Your task to perform on an android device: read, delete, or share a saved page in the chrome app Image 0: 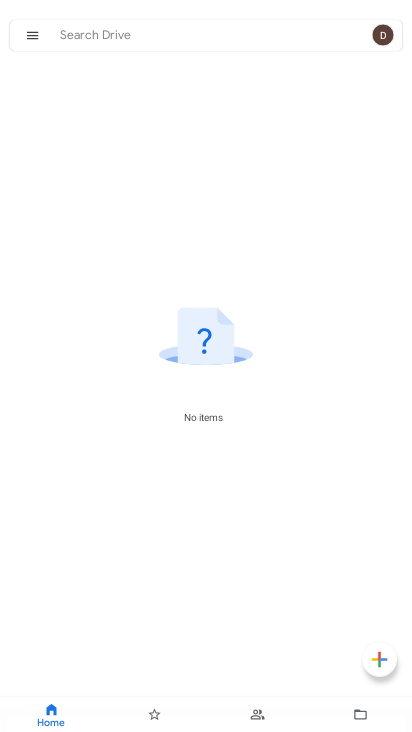
Step 0: press home button
Your task to perform on an android device: read, delete, or share a saved page in the chrome app Image 1: 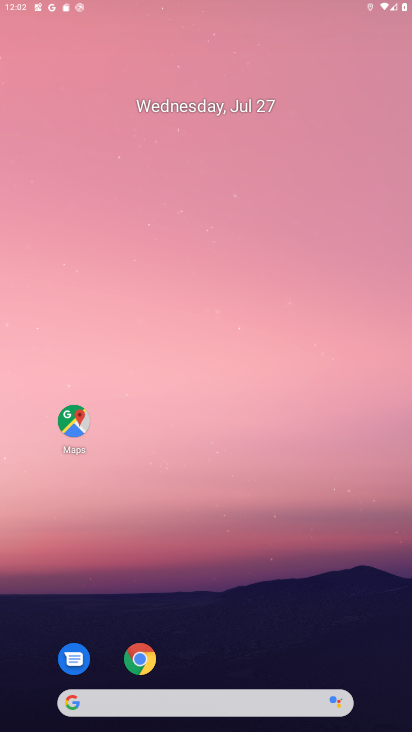
Step 1: drag from (294, 693) to (310, 5)
Your task to perform on an android device: read, delete, or share a saved page in the chrome app Image 2: 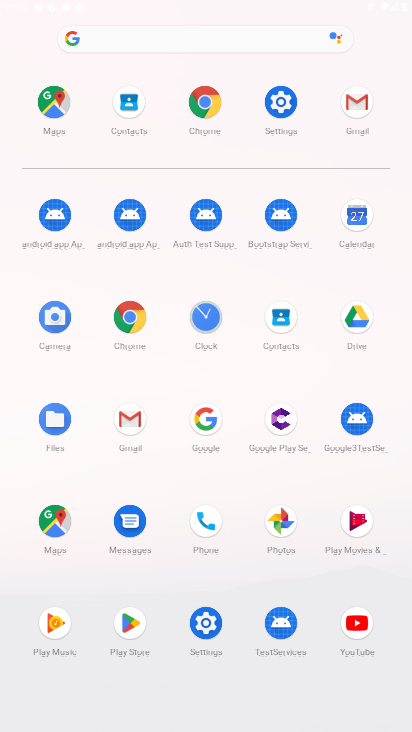
Step 2: click (140, 312)
Your task to perform on an android device: read, delete, or share a saved page in the chrome app Image 3: 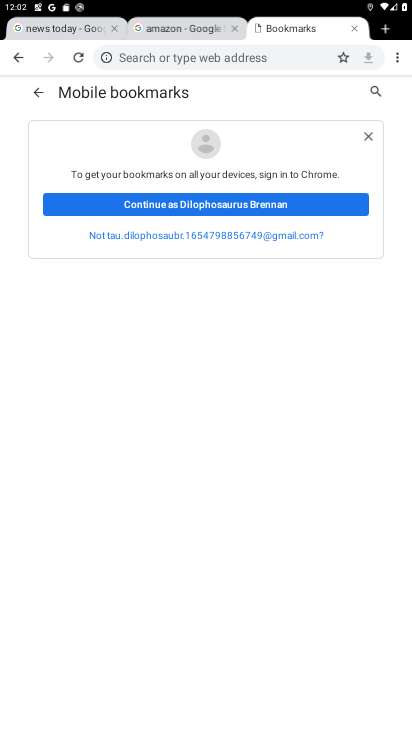
Step 3: click (398, 62)
Your task to perform on an android device: read, delete, or share a saved page in the chrome app Image 4: 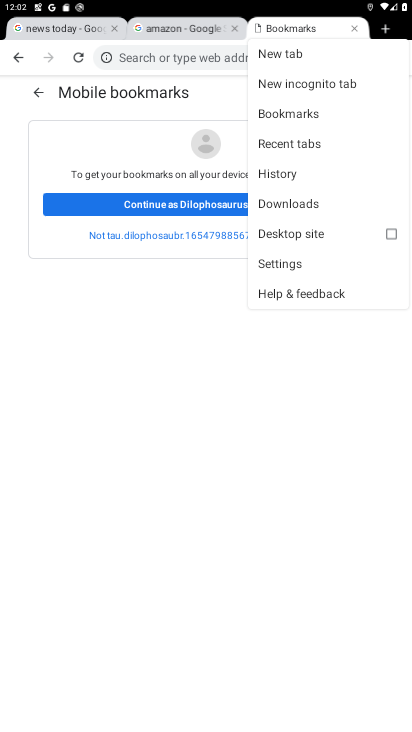
Step 4: click (286, 204)
Your task to perform on an android device: read, delete, or share a saved page in the chrome app Image 5: 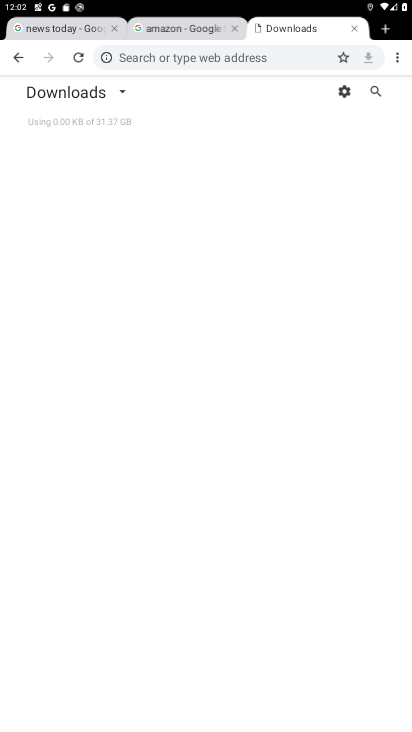
Step 5: task complete